Your task to perform on an android device: Open Youtube and go to "Your channel" Image 0: 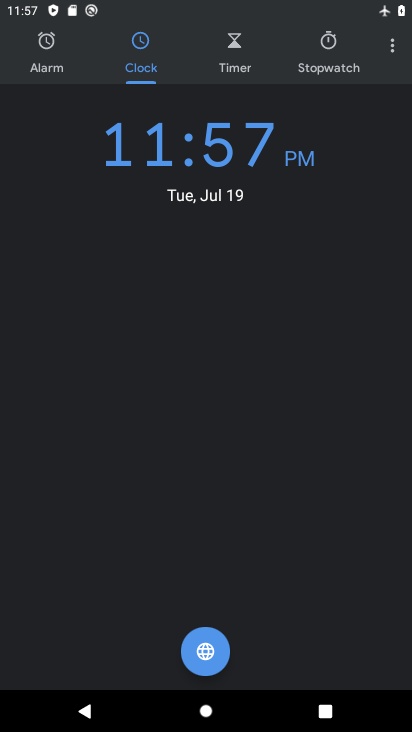
Step 0: press home button
Your task to perform on an android device: Open Youtube and go to "Your channel" Image 1: 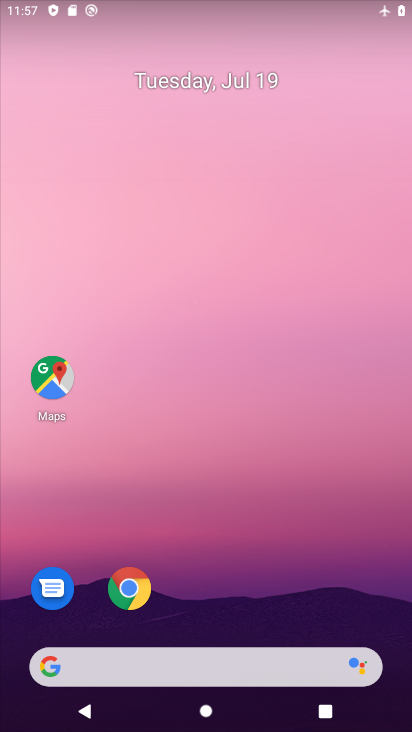
Step 1: drag from (242, 594) to (236, 235)
Your task to perform on an android device: Open Youtube and go to "Your channel" Image 2: 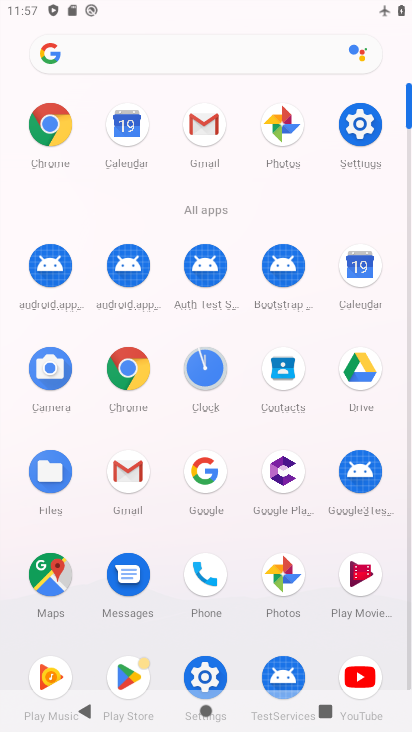
Step 2: click (364, 670)
Your task to perform on an android device: Open Youtube and go to "Your channel" Image 3: 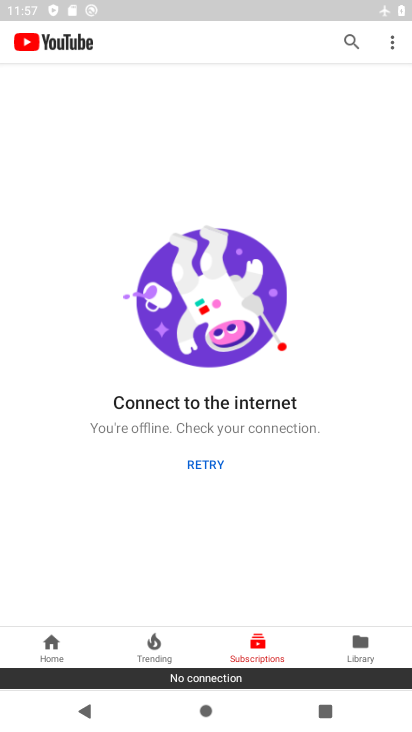
Step 3: click (341, 44)
Your task to perform on an android device: Open Youtube and go to "Your channel" Image 4: 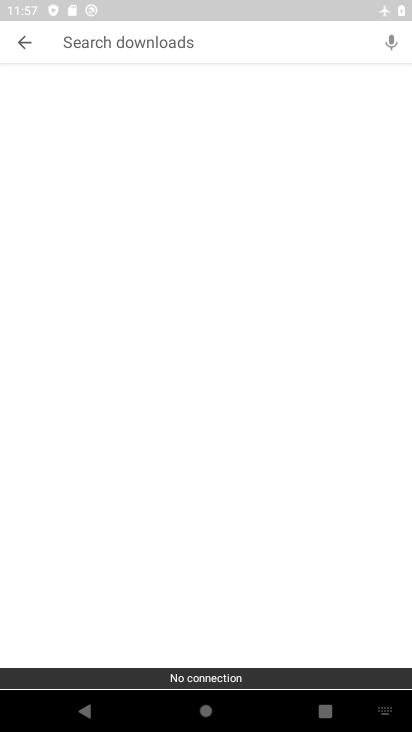
Step 4: type "delhi "
Your task to perform on an android device: Open Youtube and go to "Your channel" Image 5: 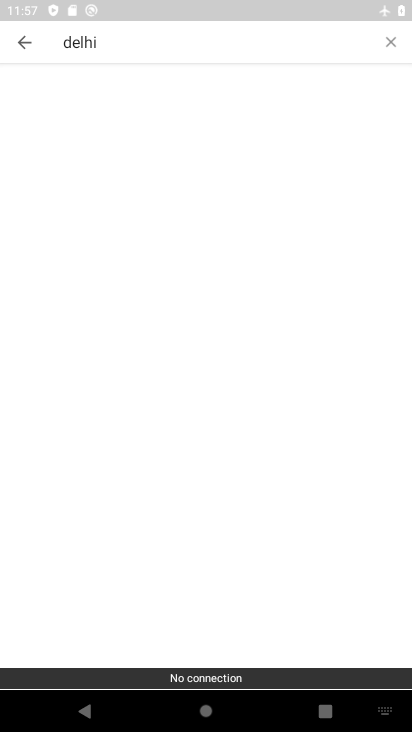
Step 5: click (152, 48)
Your task to perform on an android device: Open Youtube and go to "Your channel" Image 6: 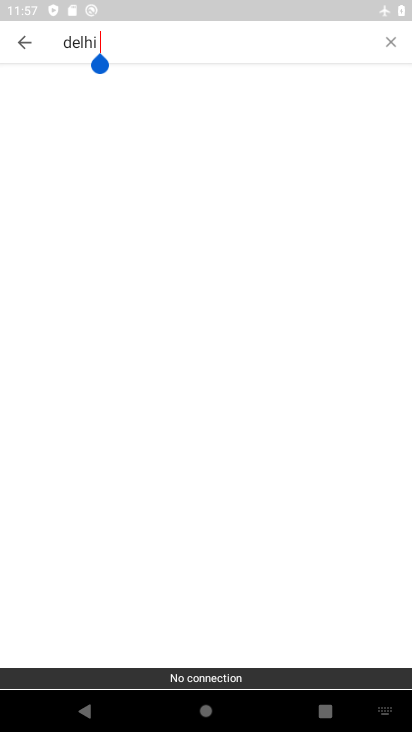
Step 6: task complete